Your task to perform on an android device: turn smart compose on in the gmail app Image 0: 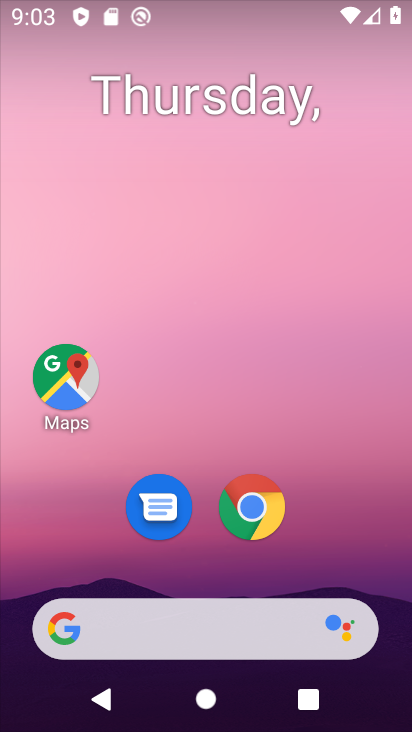
Step 0: drag from (204, 559) to (261, 18)
Your task to perform on an android device: turn smart compose on in the gmail app Image 1: 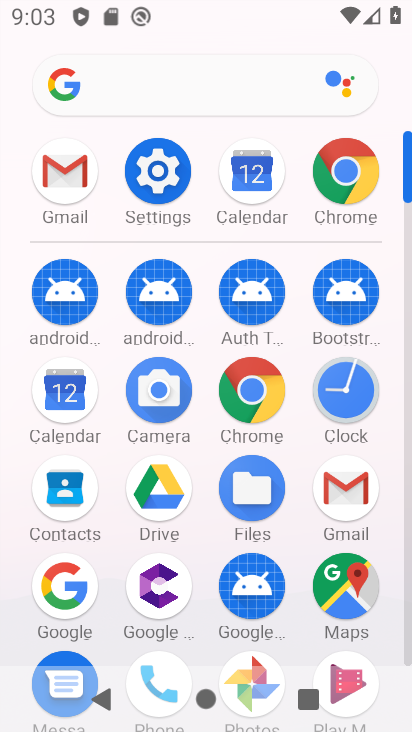
Step 1: click (363, 502)
Your task to perform on an android device: turn smart compose on in the gmail app Image 2: 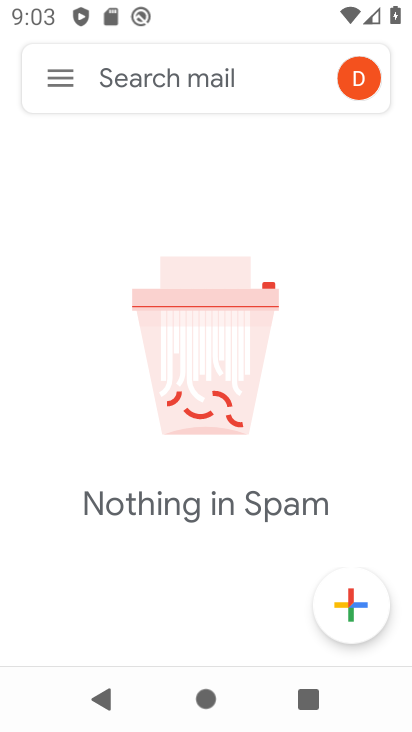
Step 2: click (62, 83)
Your task to perform on an android device: turn smart compose on in the gmail app Image 3: 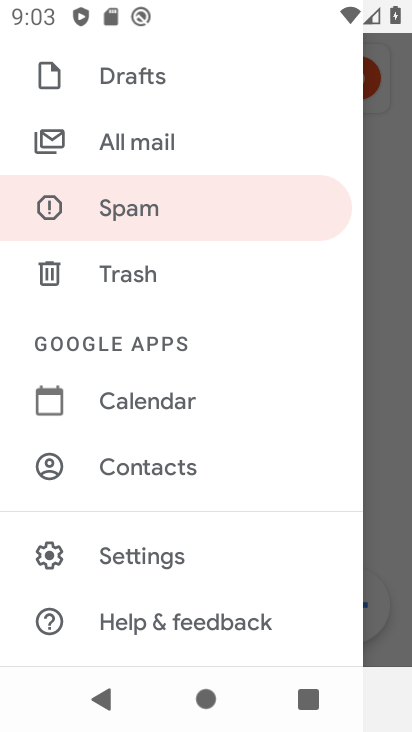
Step 3: click (148, 562)
Your task to perform on an android device: turn smart compose on in the gmail app Image 4: 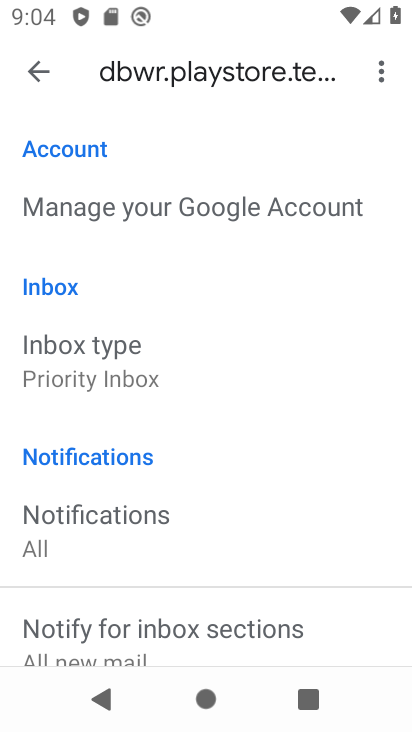
Step 4: task complete